Your task to perform on an android device: Open settings Image 0: 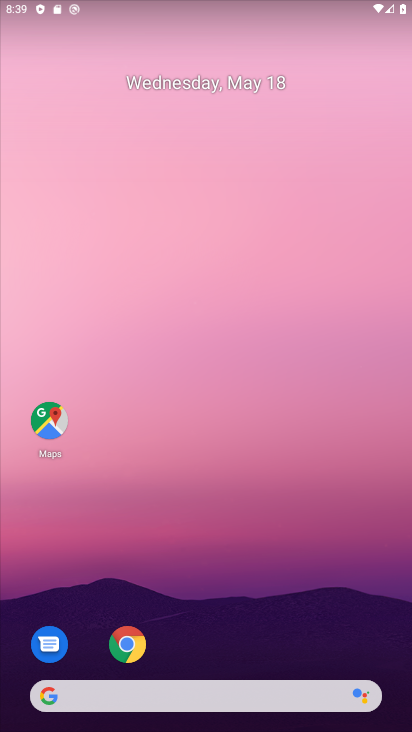
Step 0: drag from (193, 609) to (243, 84)
Your task to perform on an android device: Open settings Image 1: 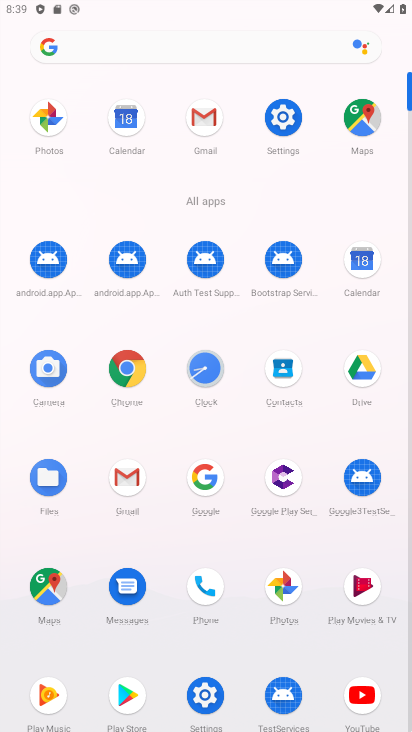
Step 1: click (282, 119)
Your task to perform on an android device: Open settings Image 2: 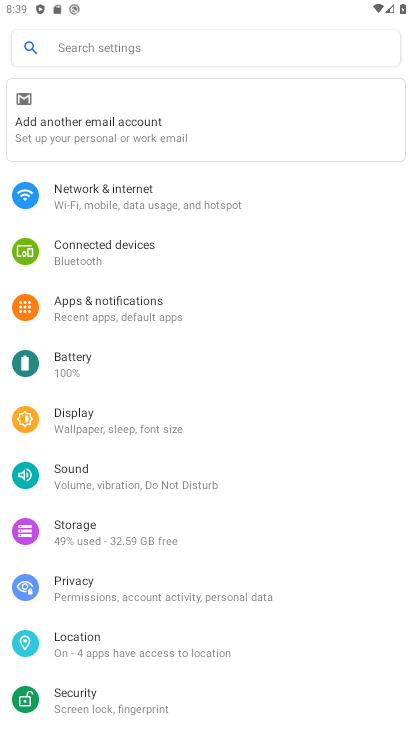
Step 2: task complete